Your task to perform on an android device: turn off smart reply in the gmail app Image 0: 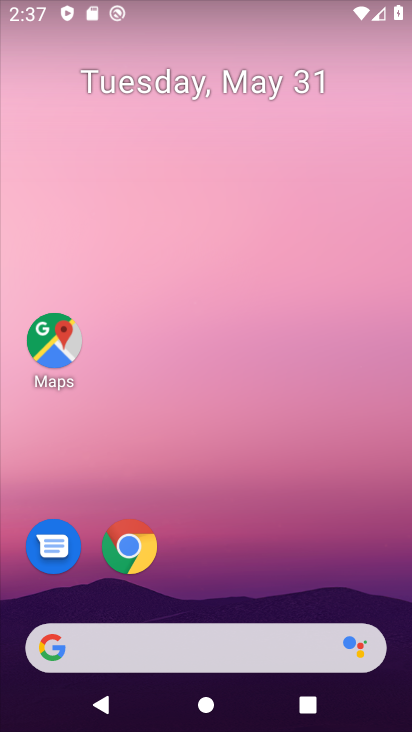
Step 0: drag from (278, 528) to (280, 23)
Your task to perform on an android device: turn off smart reply in the gmail app Image 1: 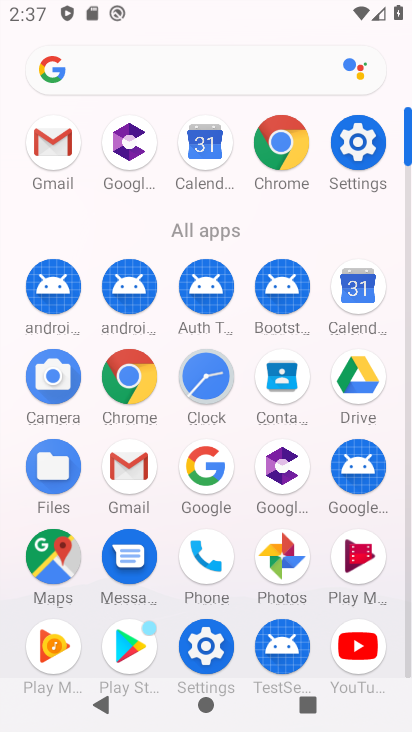
Step 1: click (140, 473)
Your task to perform on an android device: turn off smart reply in the gmail app Image 2: 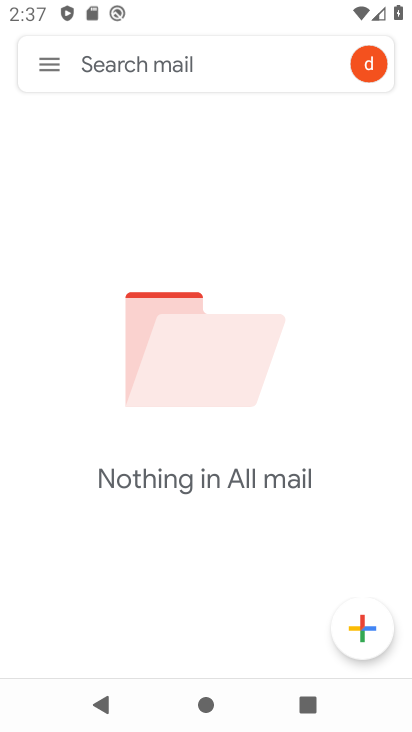
Step 2: click (51, 62)
Your task to perform on an android device: turn off smart reply in the gmail app Image 3: 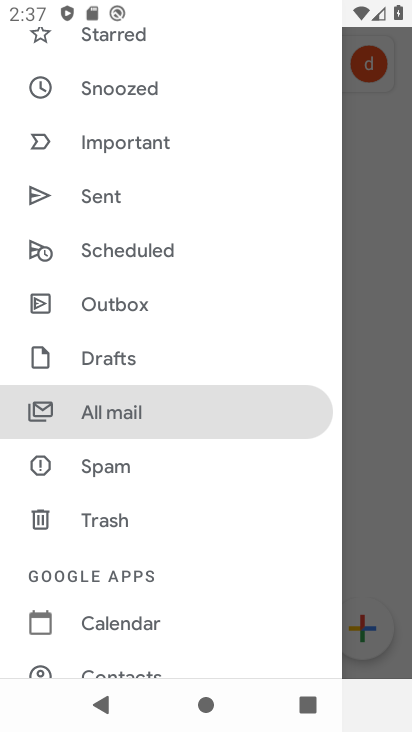
Step 3: drag from (155, 556) to (167, 319)
Your task to perform on an android device: turn off smart reply in the gmail app Image 4: 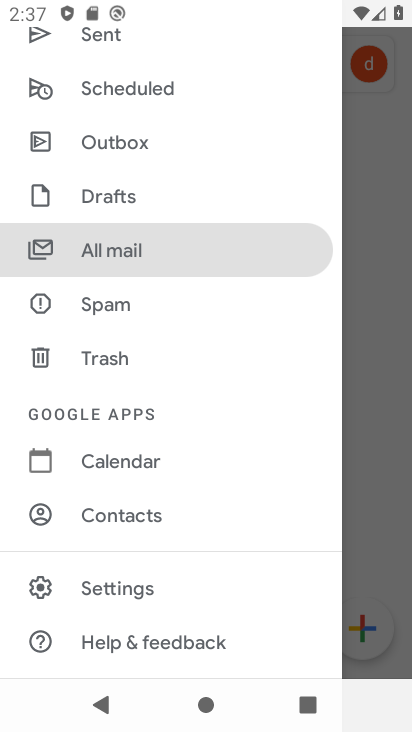
Step 4: click (130, 581)
Your task to perform on an android device: turn off smart reply in the gmail app Image 5: 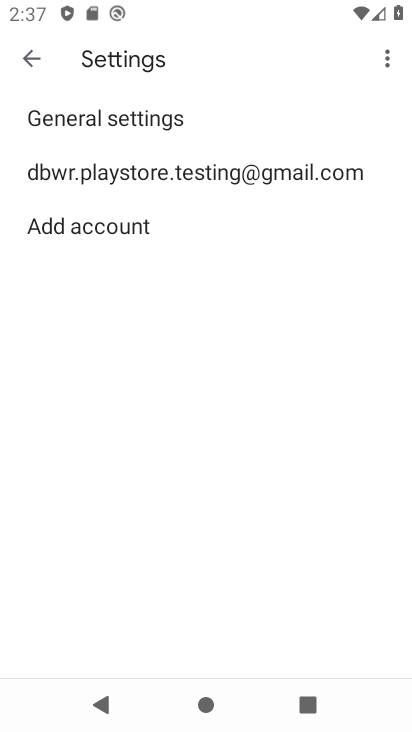
Step 5: click (255, 170)
Your task to perform on an android device: turn off smart reply in the gmail app Image 6: 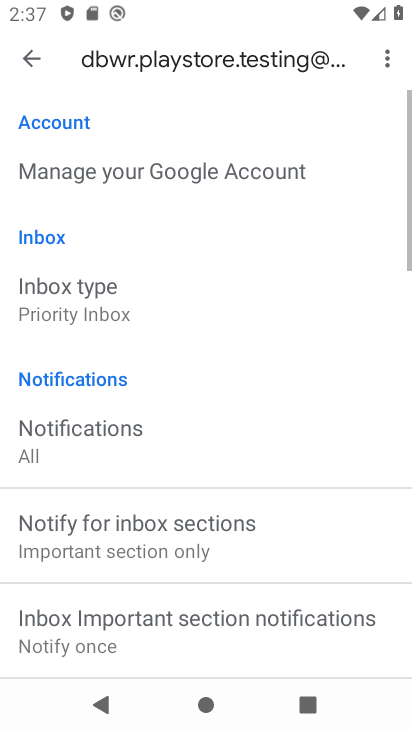
Step 6: drag from (285, 537) to (272, 10)
Your task to perform on an android device: turn off smart reply in the gmail app Image 7: 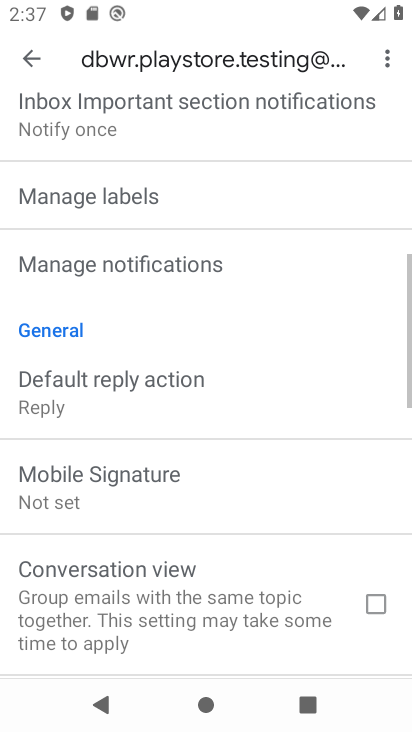
Step 7: drag from (273, 531) to (271, 150)
Your task to perform on an android device: turn off smart reply in the gmail app Image 8: 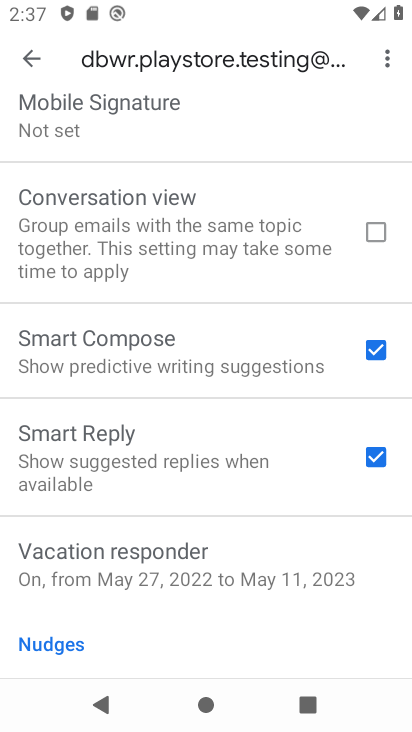
Step 8: click (368, 456)
Your task to perform on an android device: turn off smart reply in the gmail app Image 9: 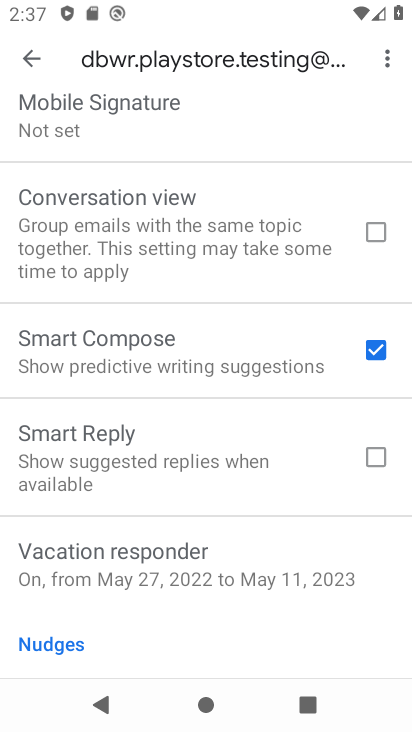
Step 9: task complete